Your task to perform on an android device: What is the news today? Image 0: 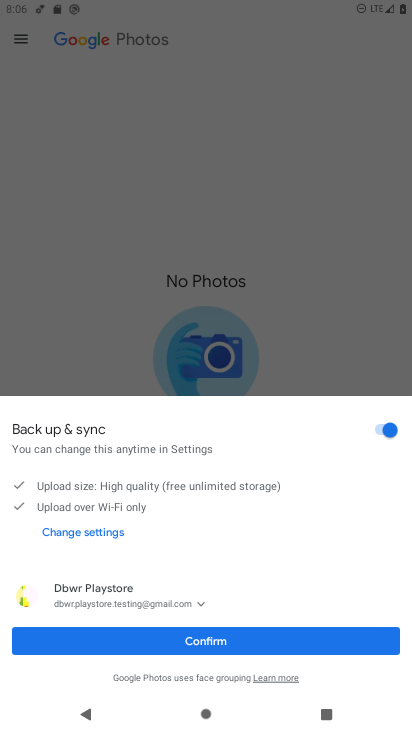
Step 0: press home button
Your task to perform on an android device: What is the news today? Image 1: 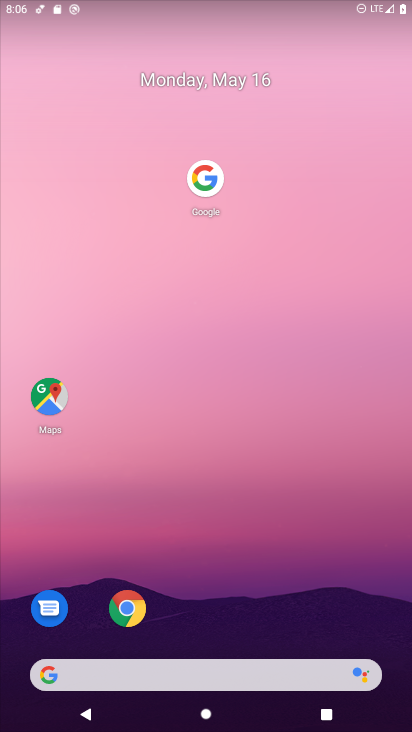
Step 1: drag from (245, 591) to (275, 129)
Your task to perform on an android device: What is the news today? Image 2: 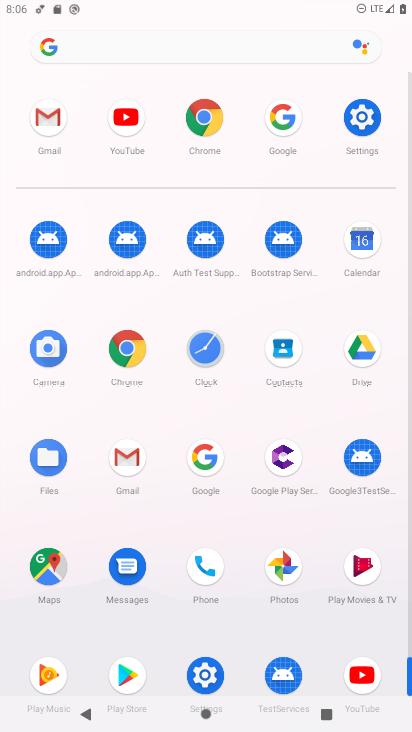
Step 2: click (279, 118)
Your task to perform on an android device: What is the news today? Image 3: 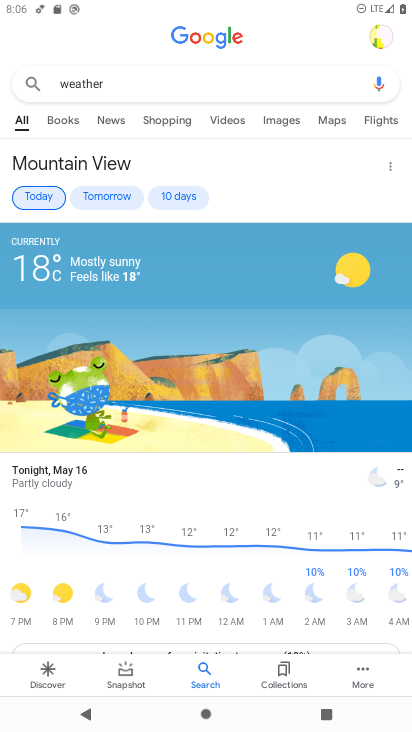
Step 3: click (206, 78)
Your task to perform on an android device: What is the news today? Image 4: 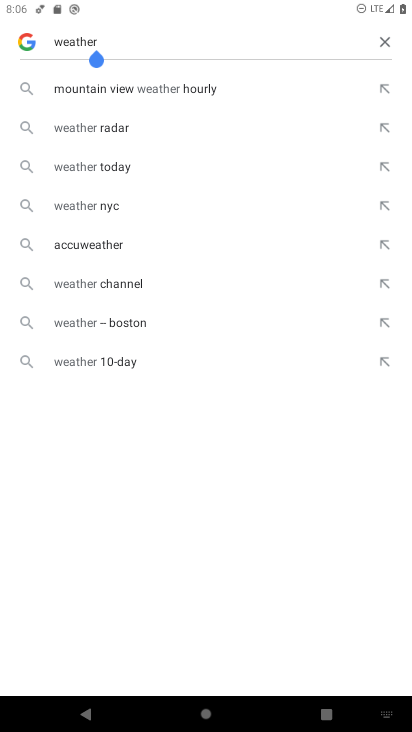
Step 4: click (382, 41)
Your task to perform on an android device: What is the news today? Image 5: 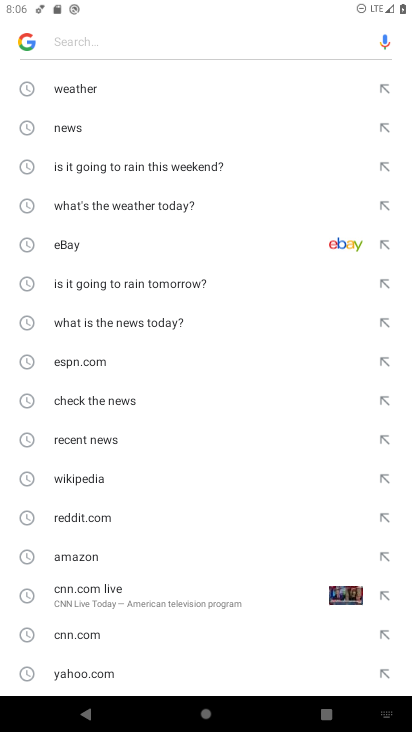
Step 5: type "what is the news today"
Your task to perform on an android device: What is the news today? Image 6: 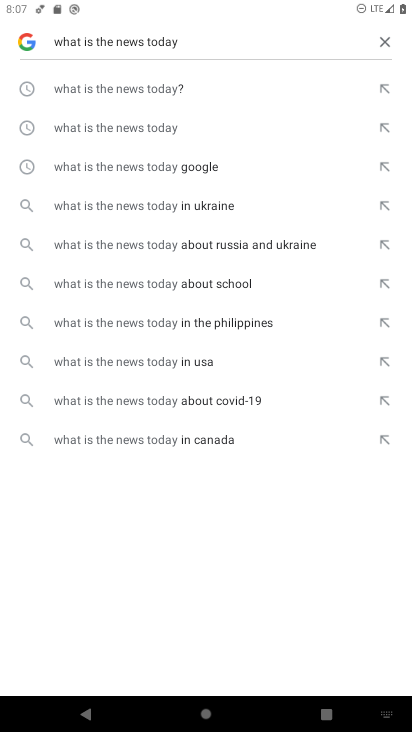
Step 6: click (135, 89)
Your task to perform on an android device: What is the news today? Image 7: 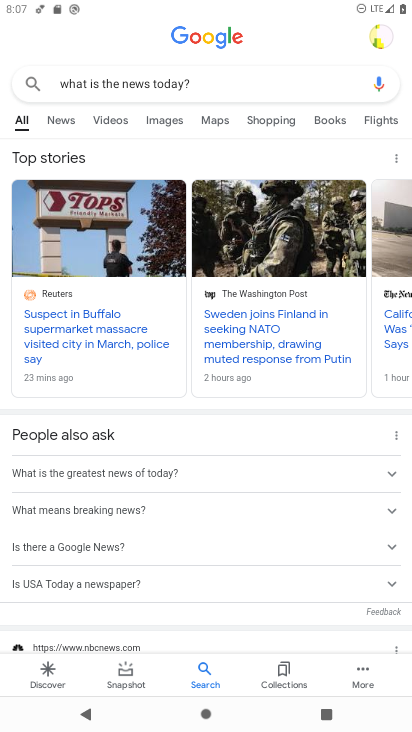
Step 7: task complete